Your task to perform on an android device: toggle notifications settings in the gmail app Image 0: 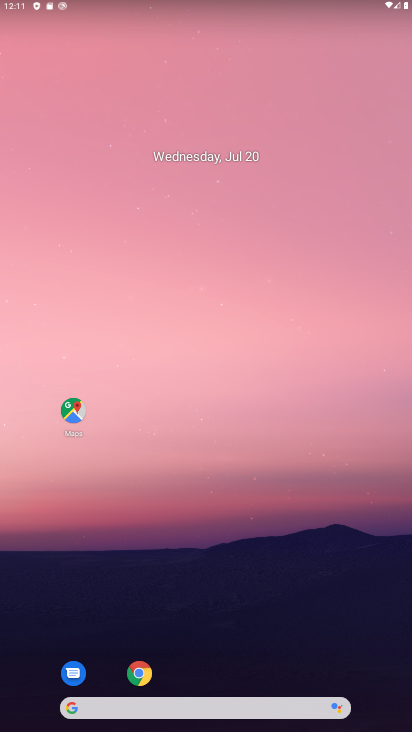
Step 0: drag from (244, 662) to (241, 4)
Your task to perform on an android device: toggle notifications settings in the gmail app Image 1: 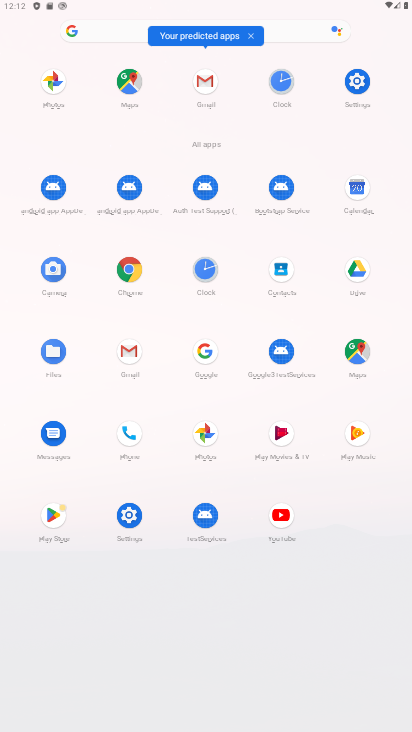
Step 1: click (126, 361)
Your task to perform on an android device: toggle notifications settings in the gmail app Image 2: 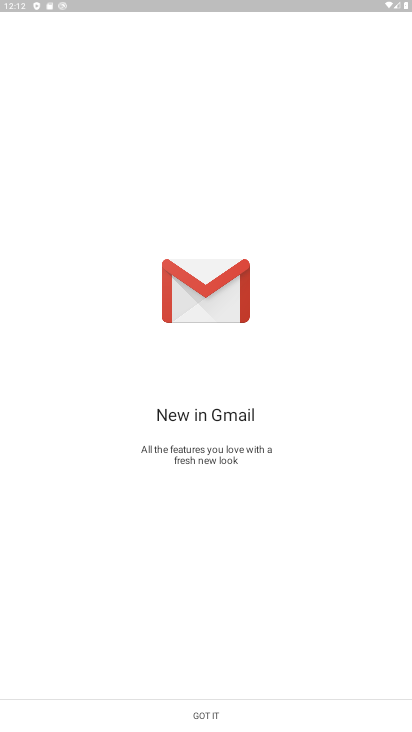
Step 2: click (206, 721)
Your task to perform on an android device: toggle notifications settings in the gmail app Image 3: 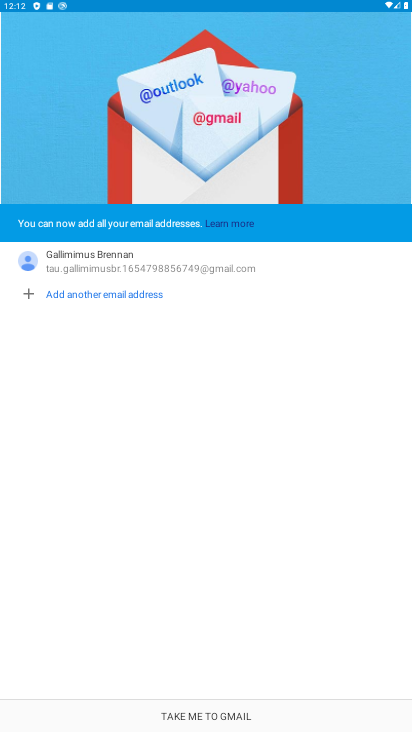
Step 3: click (203, 716)
Your task to perform on an android device: toggle notifications settings in the gmail app Image 4: 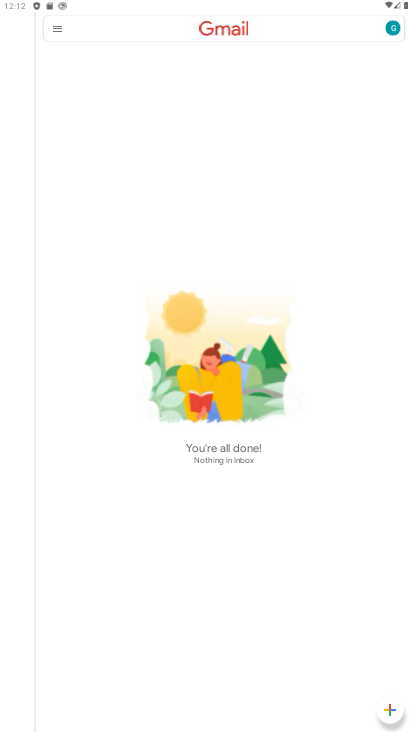
Step 4: click (54, 27)
Your task to perform on an android device: toggle notifications settings in the gmail app Image 5: 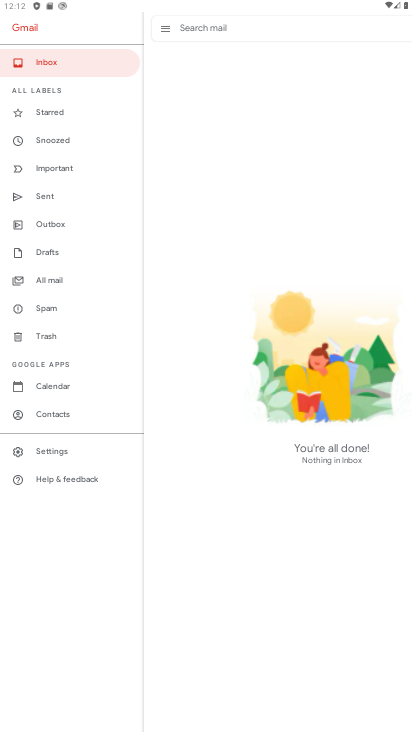
Step 5: click (57, 454)
Your task to perform on an android device: toggle notifications settings in the gmail app Image 6: 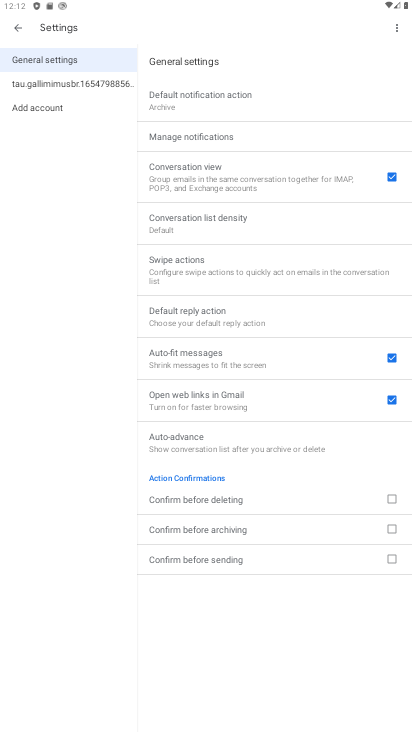
Step 6: click (242, 136)
Your task to perform on an android device: toggle notifications settings in the gmail app Image 7: 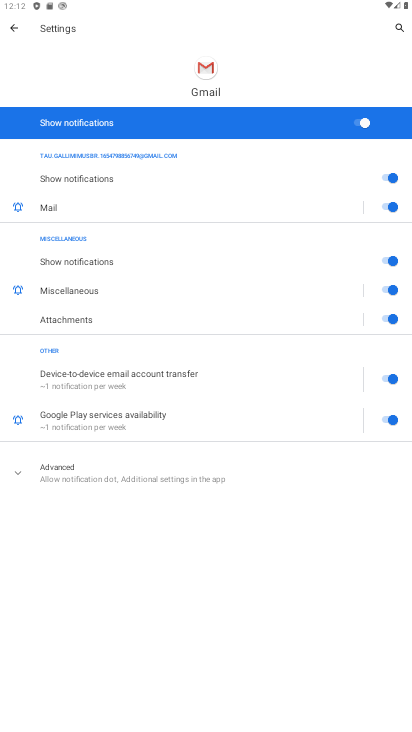
Step 7: click (338, 126)
Your task to perform on an android device: toggle notifications settings in the gmail app Image 8: 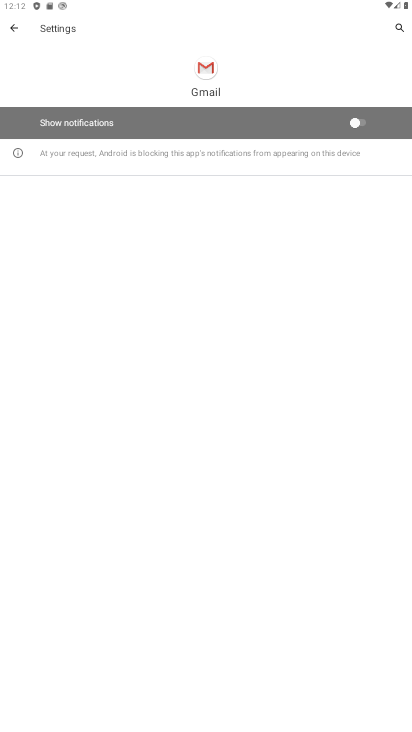
Step 8: task complete